Your task to perform on an android device: toggle show notifications on the lock screen Image 0: 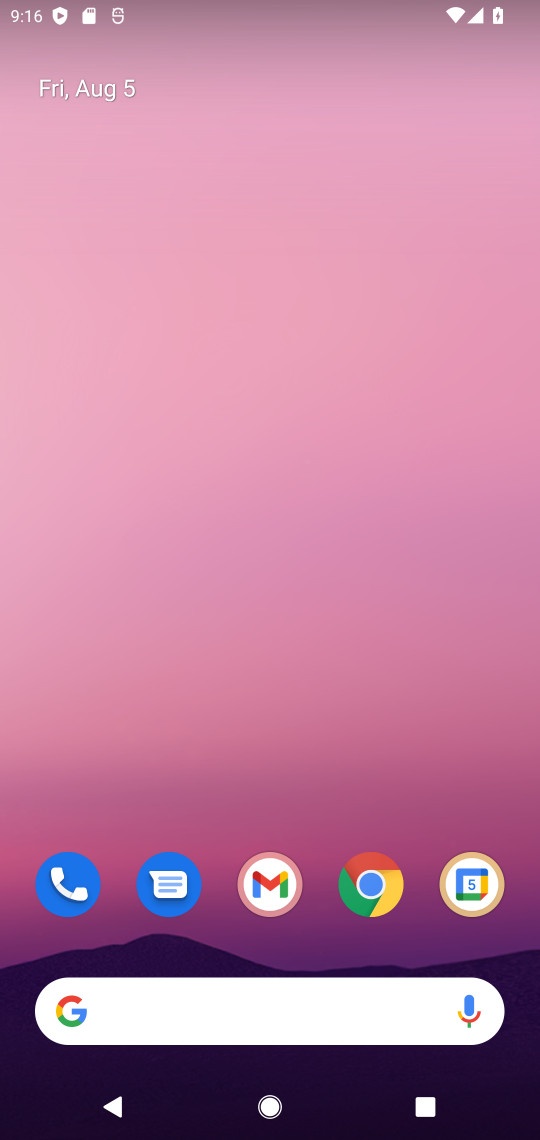
Step 0: drag from (296, 349) to (299, 257)
Your task to perform on an android device: toggle show notifications on the lock screen Image 1: 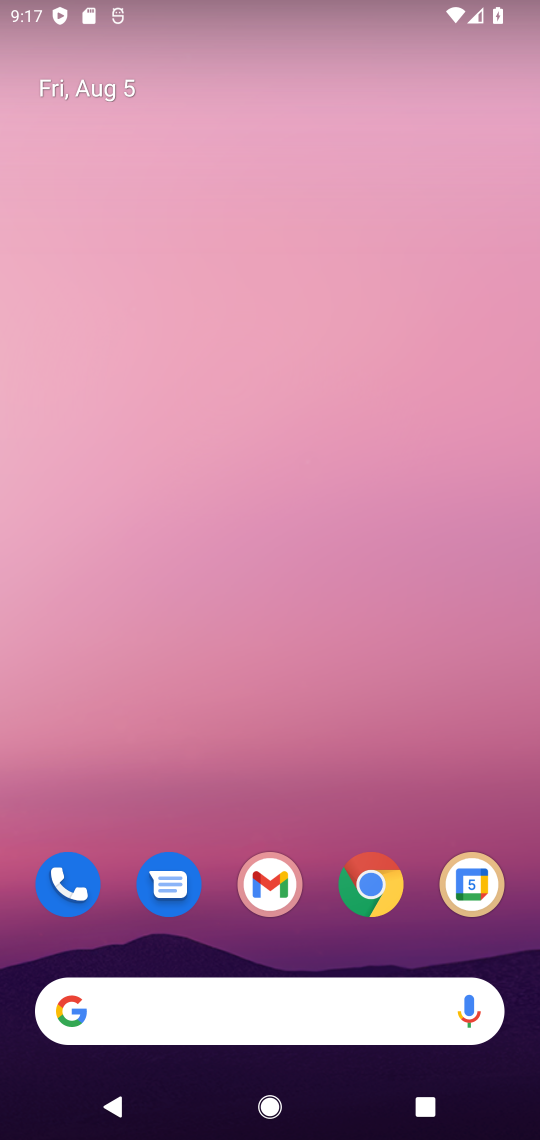
Step 1: drag from (277, 750) to (398, 212)
Your task to perform on an android device: toggle show notifications on the lock screen Image 2: 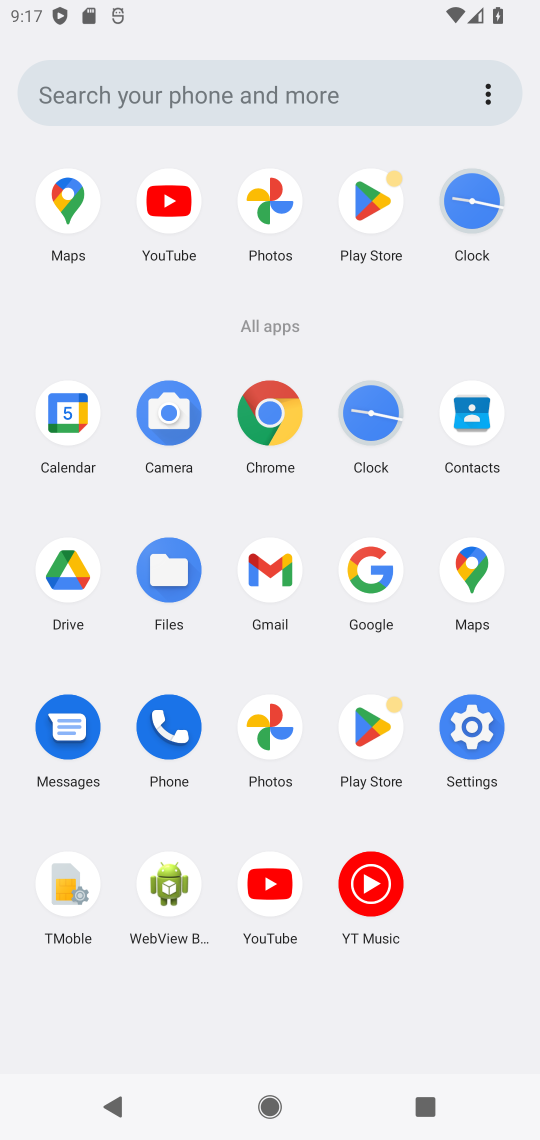
Step 2: click (470, 732)
Your task to perform on an android device: toggle show notifications on the lock screen Image 3: 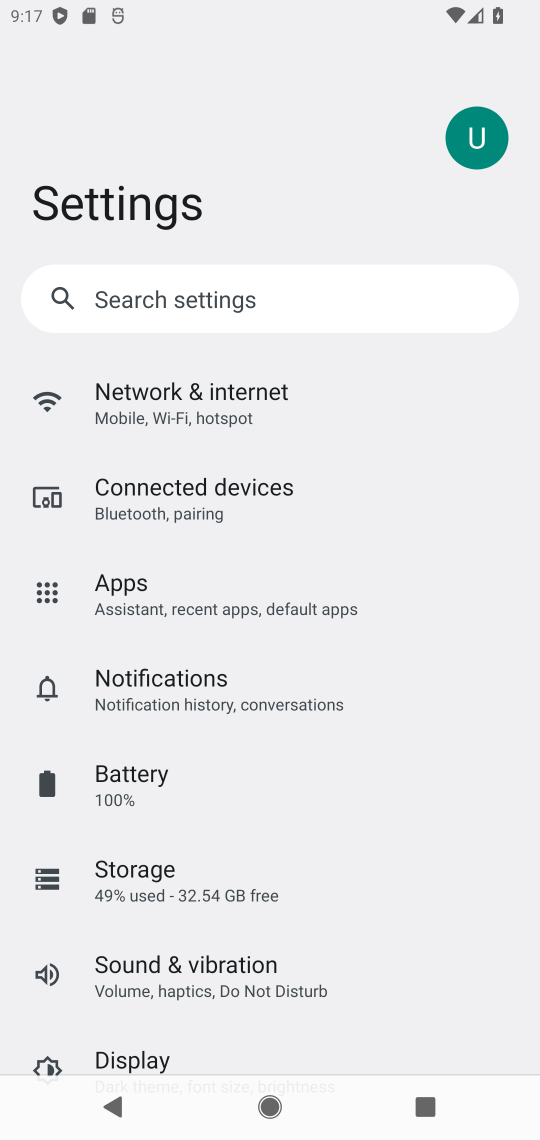
Step 3: task complete